Your task to perform on an android device: Search for seafood restaurants on Google Maps Image 0: 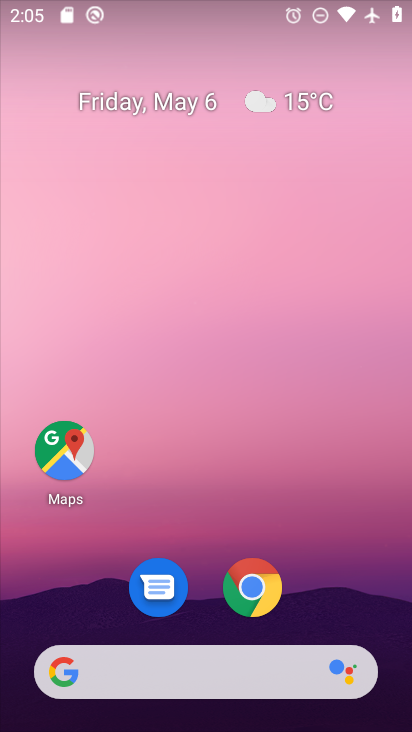
Step 0: click (57, 453)
Your task to perform on an android device: Search for seafood restaurants on Google Maps Image 1: 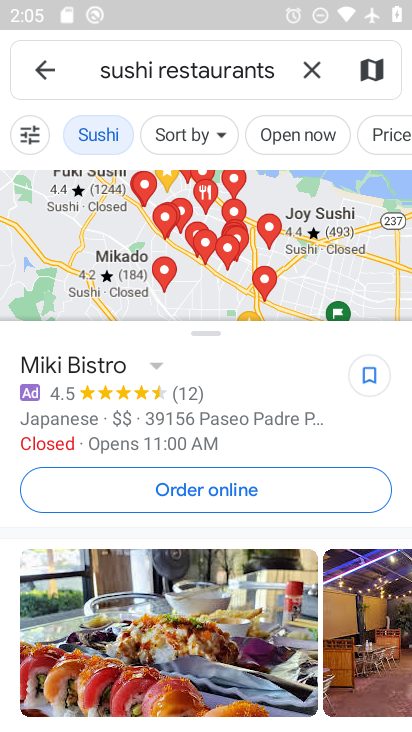
Step 1: click (311, 70)
Your task to perform on an android device: Search for seafood restaurants on Google Maps Image 2: 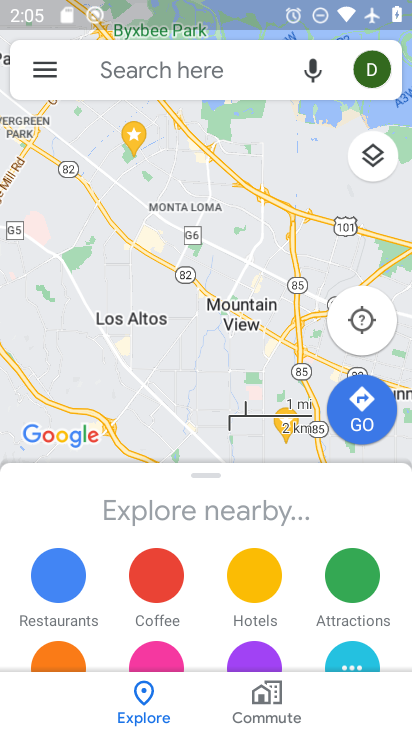
Step 2: click (159, 62)
Your task to perform on an android device: Search for seafood restaurants on Google Maps Image 3: 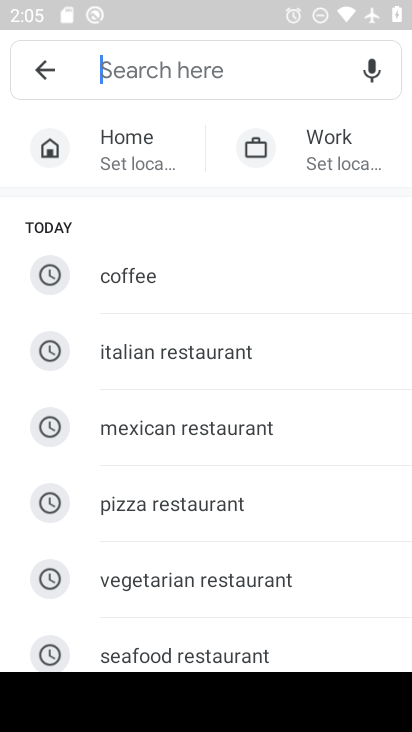
Step 3: click (216, 645)
Your task to perform on an android device: Search for seafood restaurants on Google Maps Image 4: 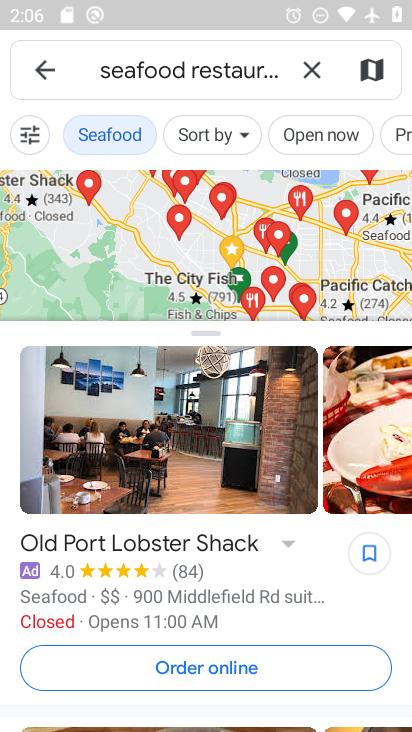
Step 4: task complete